Your task to perform on an android device: search for starred emails in the gmail app Image 0: 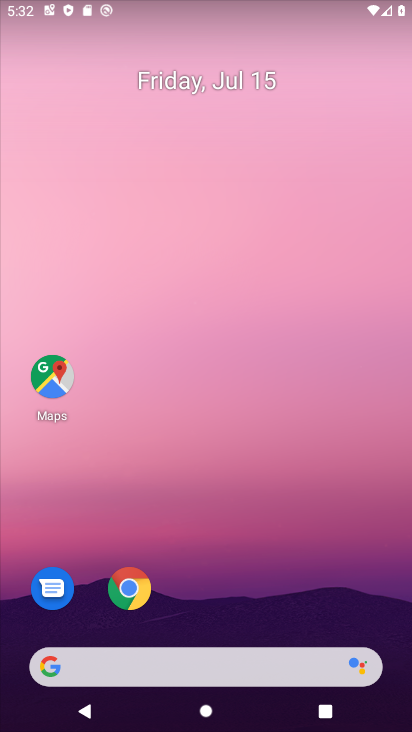
Step 0: drag from (253, 671) to (328, 96)
Your task to perform on an android device: search for starred emails in the gmail app Image 1: 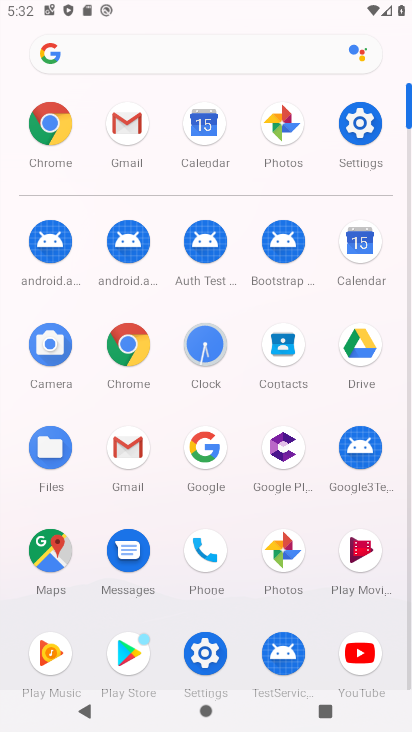
Step 1: click (125, 445)
Your task to perform on an android device: search for starred emails in the gmail app Image 2: 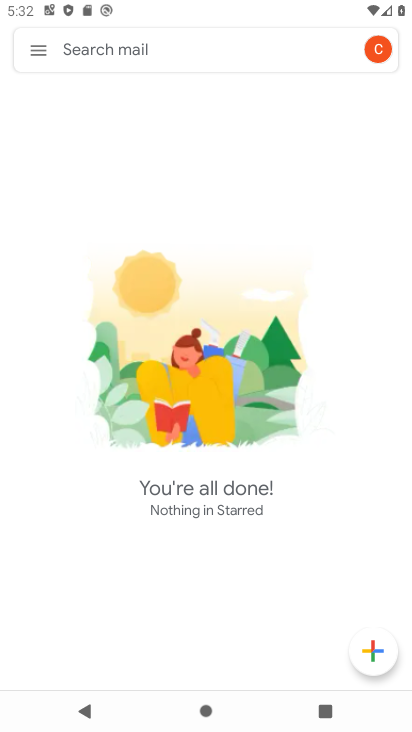
Step 2: click (37, 48)
Your task to perform on an android device: search for starred emails in the gmail app Image 3: 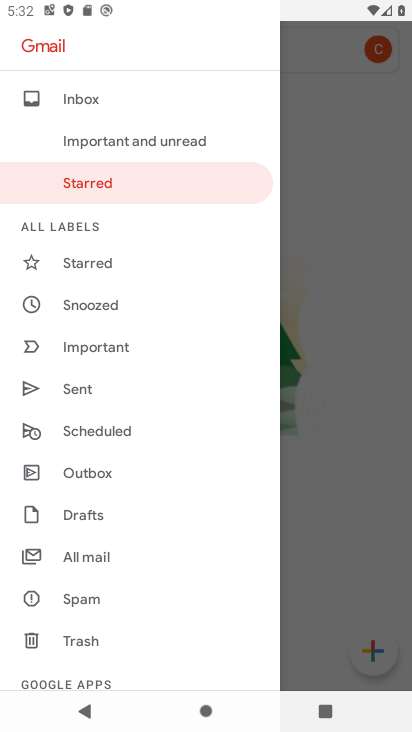
Step 3: click (115, 271)
Your task to perform on an android device: search for starred emails in the gmail app Image 4: 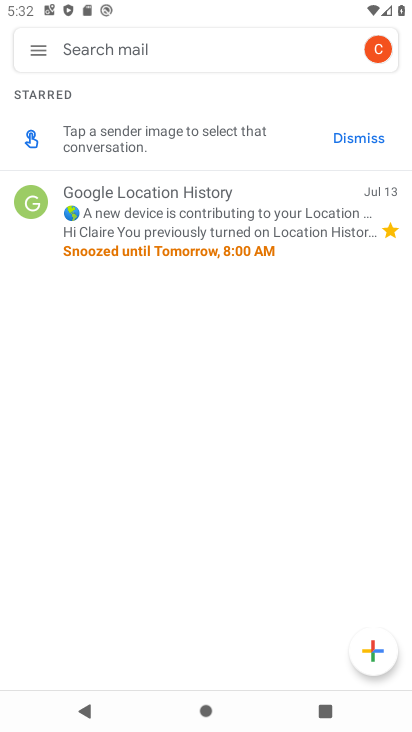
Step 4: click (229, 231)
Your task to perform on an android device: search for starred emails in the gmail app Image 5: 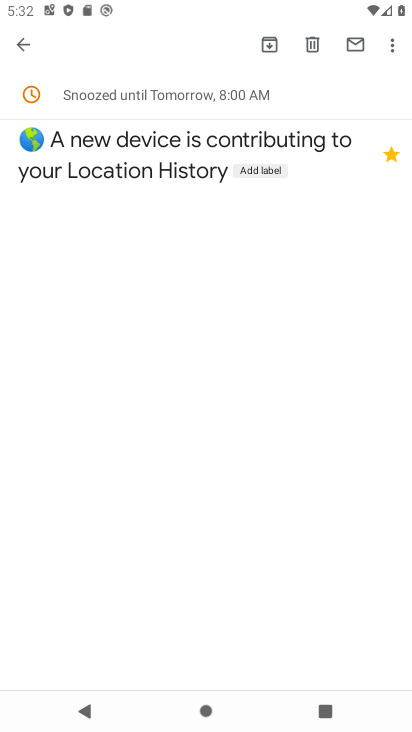
Step 5: task complete